Your task to perform on an android device: Show me popular videos on Youtube Image 0: 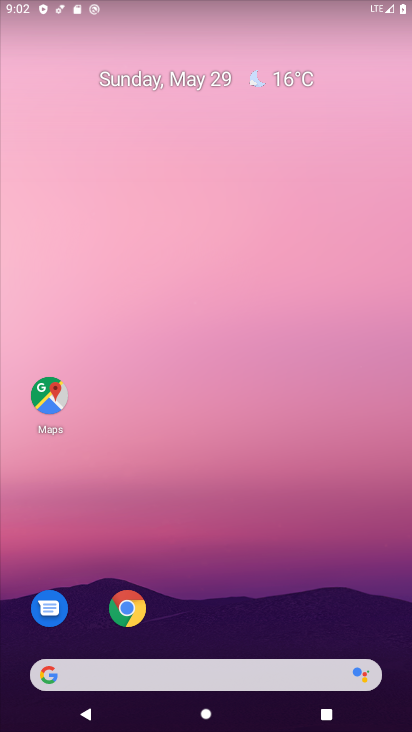
Step 0: drag from (188, 633) to (200, 25)
Your task to perform on an android device: Show me popular videos on Youtube Image 1: 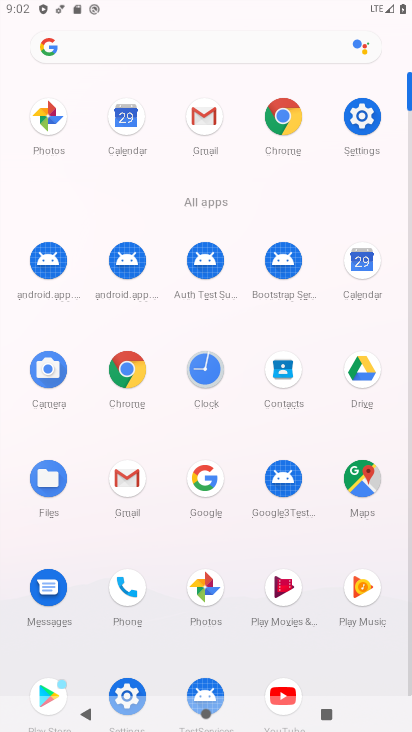
Step 1: drag from (287, 641) to (317, 265)
Your task to perform on an android device: Show me popular videos on Youtube Image 2: 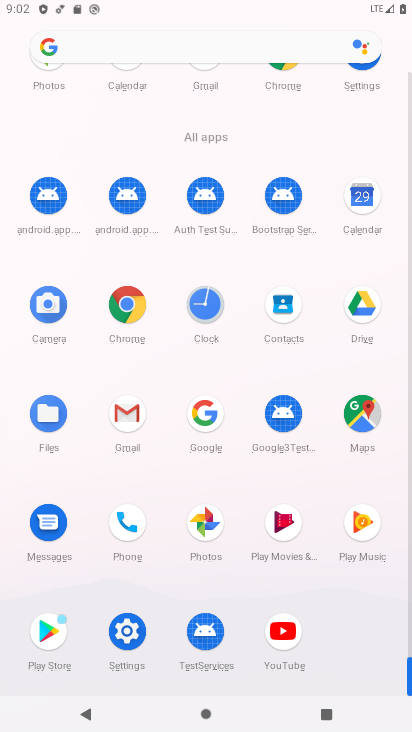
Step 2: click (284, 646)
Your task to perform on an android device: Show me popular videos on Youtube Image 3: 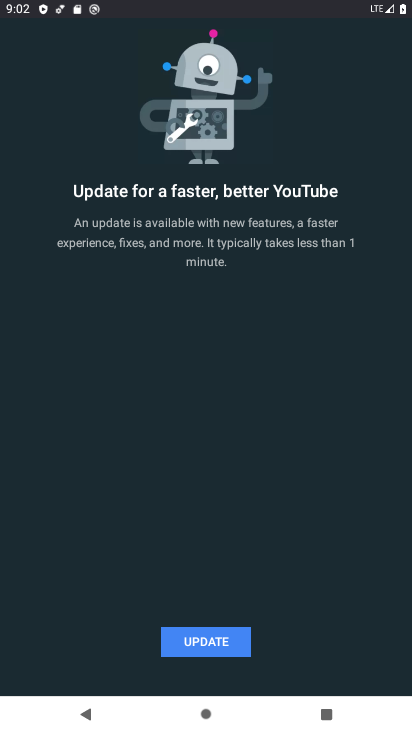
Step 3: click (208, 630)
Your task to perform on an android device: Show me popular videos on Youtube Image 4: 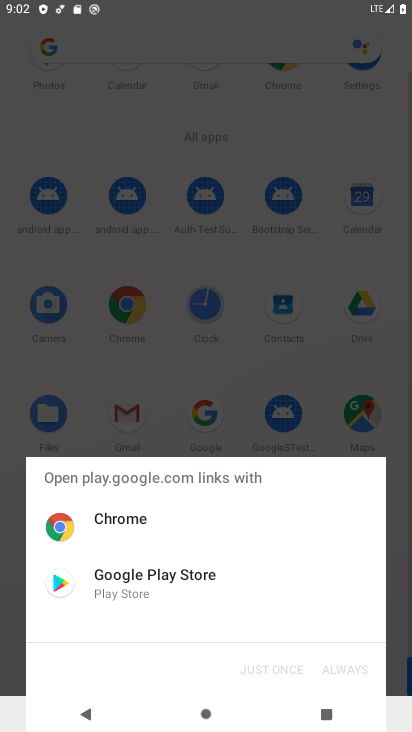
Step 4: click (153, 579)
Your task to perform on an android device: Show me popular videos on Youtube Image 5: 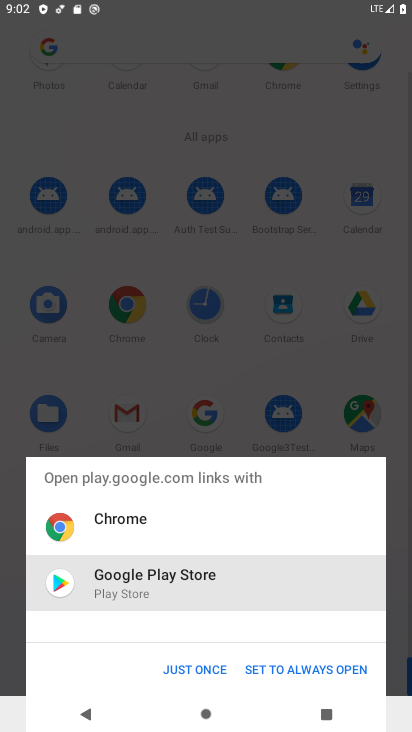
Step 5: click (297, 680)
Your task to perform on an android device: Show me popular videos on Youtube Image 6: 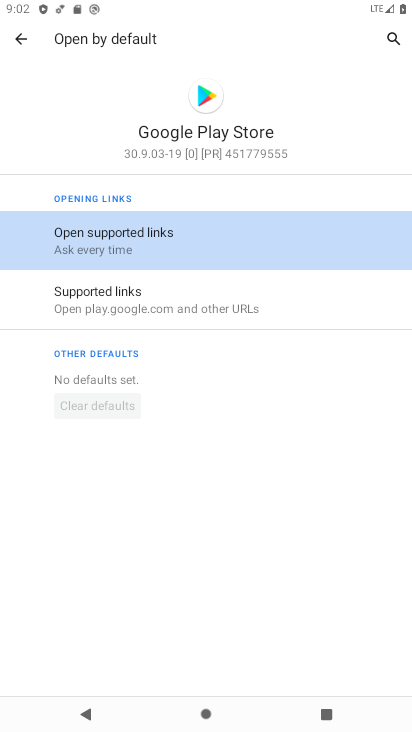
Step 6: click (132, 230)
Your task to perform on an android device: Show me popular videos on Youtube Image 7: 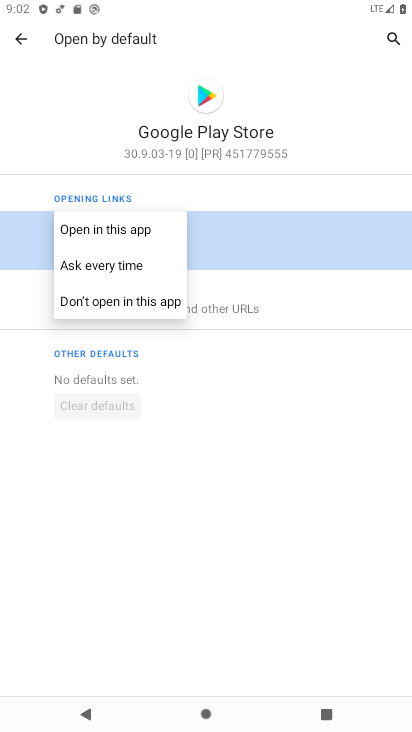
Step 7: click (132, 230)
Your task to perform on an android device: Show me popular videos on Youtube Image 8: 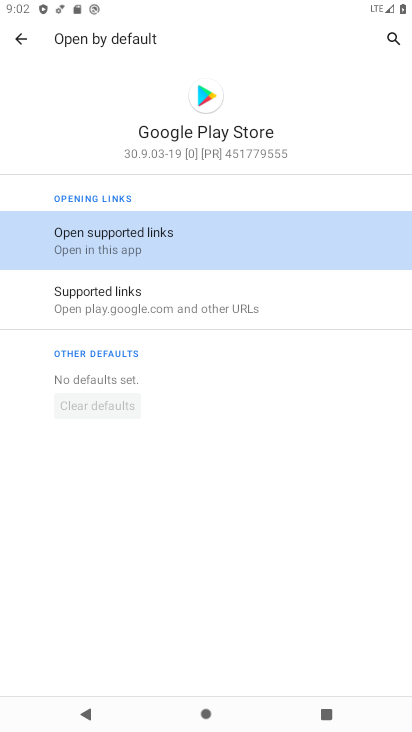
Step 8: click (25, 34)
Your task to perform on an android device: Show me popular videos on Youtube Image 9: 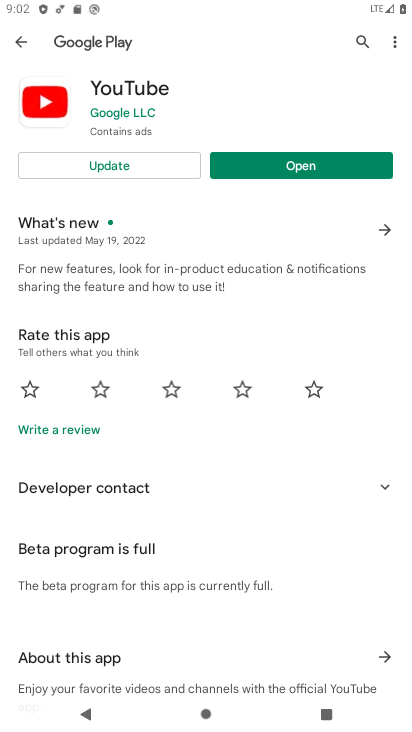
Step 9: click (117, 166)
Your task to perform on an android device: Show me popular videos on Youtube Image 10: 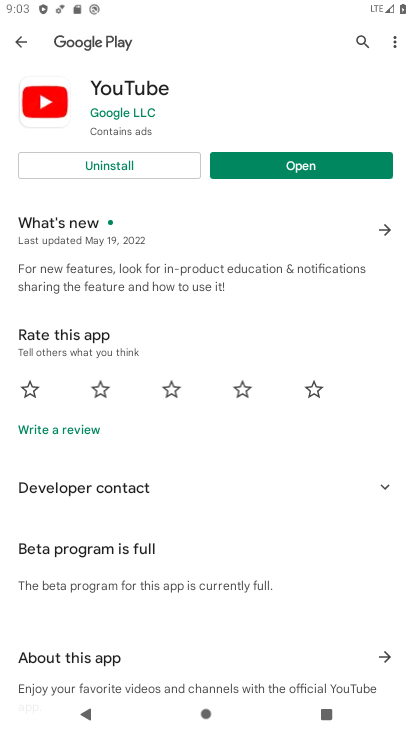
Step 10: click (317, 172)
Your task to perform on an android device: Show me popular videos on Youtube Image 11: 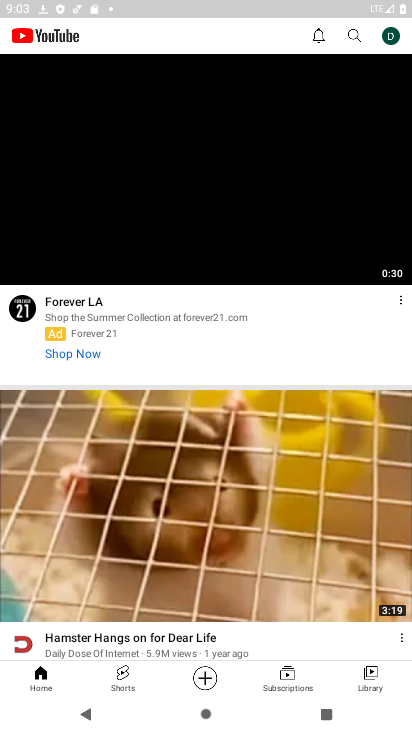
Step 11: task complete